Your task to perform on an android device: allow cookies in the chrome app Image 0: 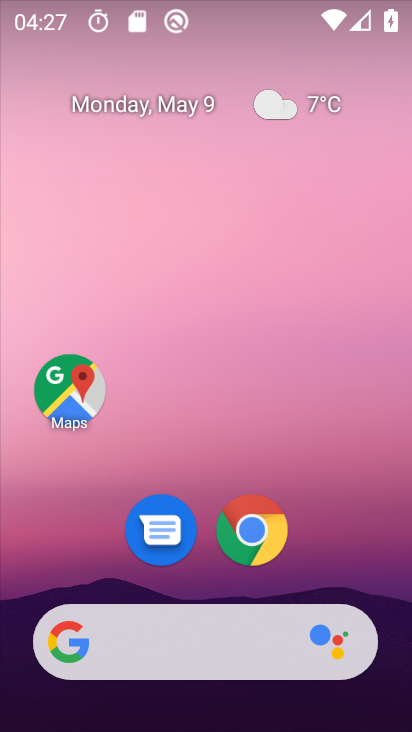
Step 0: click (240, 515)
Your task to perform on an android device: allow cookies in the chrome app Image 1: 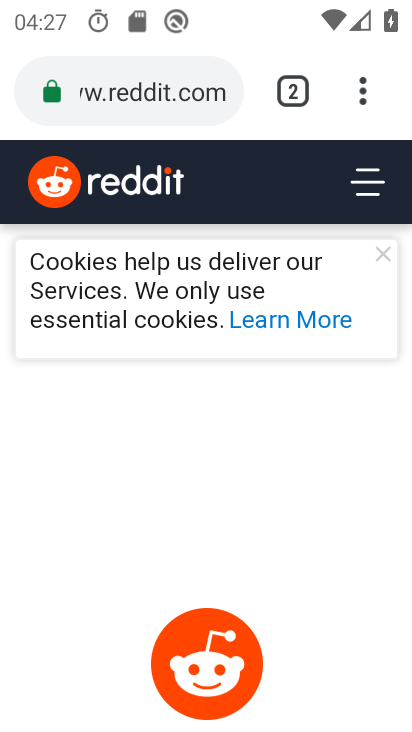
Step 1: drag from (360, 95) to (106, 549)
Your task to perform on an android device: allow cookies in the chrome app Image 2: 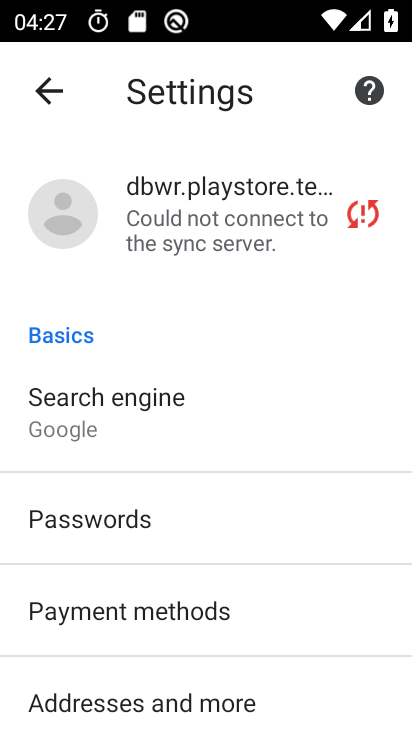
Step 2: drag from (132, 693) to (225, 225)
Your task to perform on an android device: allow cookies in the chrome app Image 3: 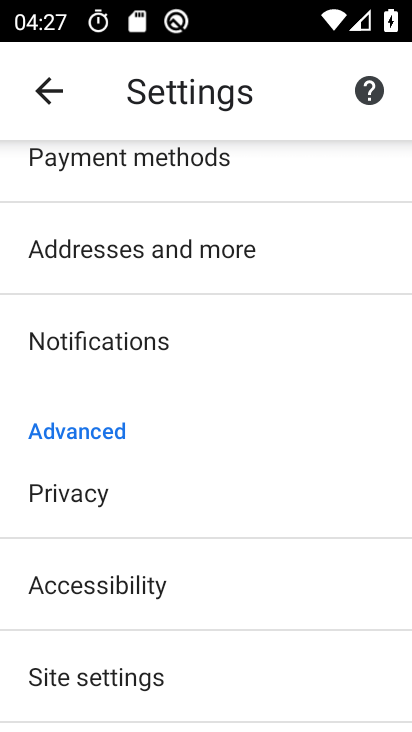
Step 3: click (170, 672)
Your task to perform on an android device: allow cookies in the chrome app Image 4: 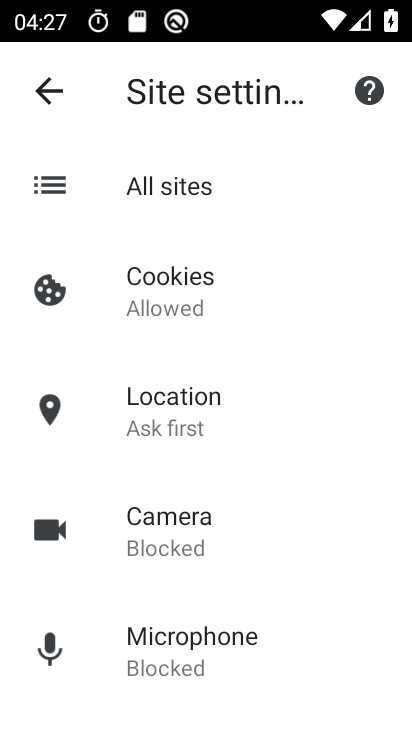
Step 4: click (211, 290)
Your task to perform on an android device: allow cookies in the chrome app Image 5: 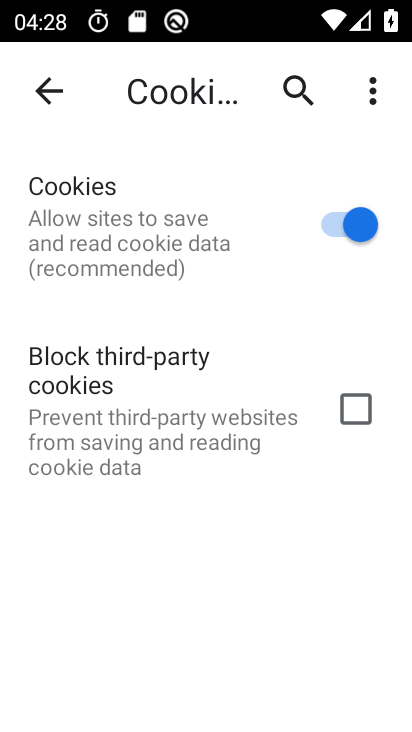
Step 5: task complete